Your task to perform on an android device: choose inbox layout in the gmail app Image 0: 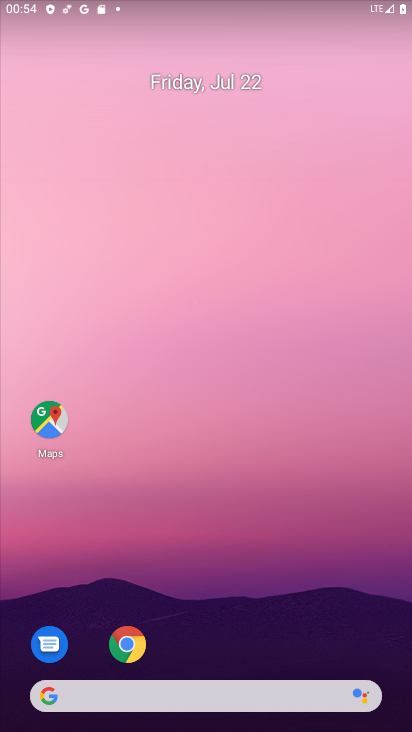
Step 0: drag from (211, 726) to (271, 145)
Your task to perform on an android device: choose inbox layout in the gmail app Image 1: 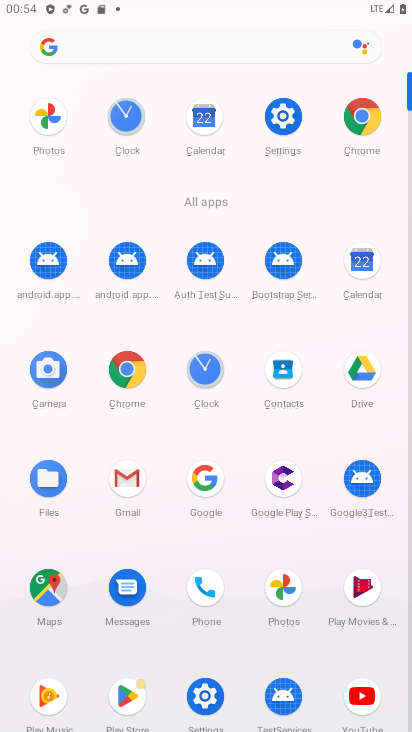
Step 1: click (115, 476)
Your task to perform on an android device: choose inbox layout in the gmail app Image 2: 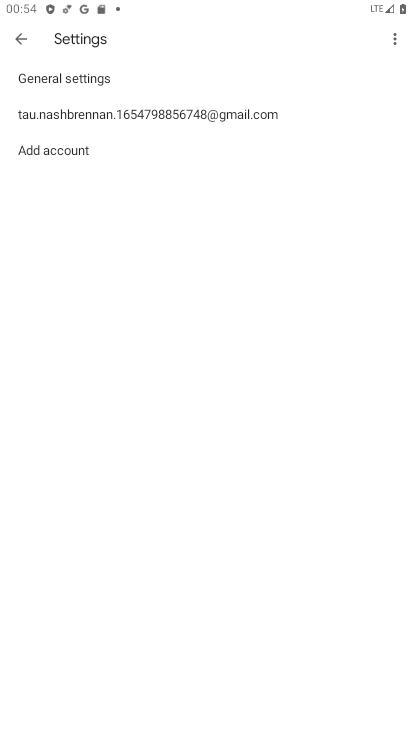
Step 2: click (133, 107)
Your task to perform on an android device: choose inbox layout in the gmail app Image 3: 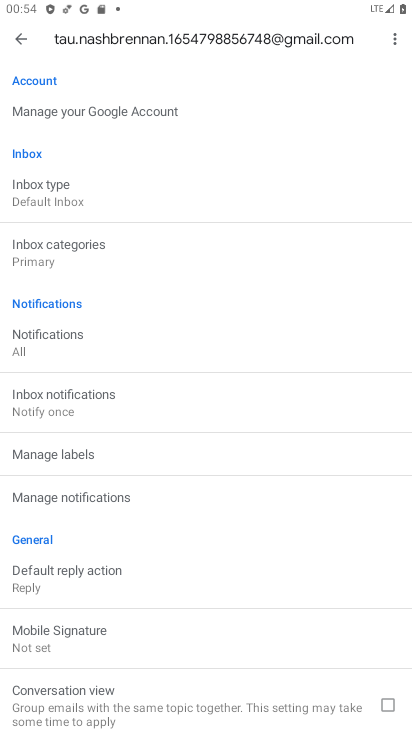
Step 3: click (64, 192)
Your task to perform on an android device: choose inbox layout in the gmail app Image 4: 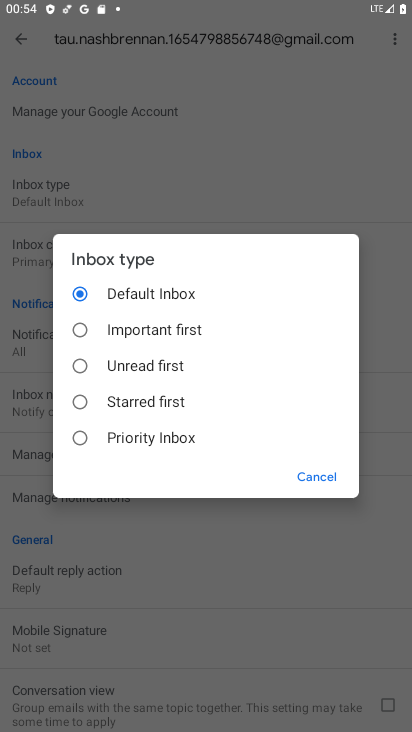
Step 4: click (133, 437)
Your task to perform on an android device: choose inbox layout in the gmail app Image 5: 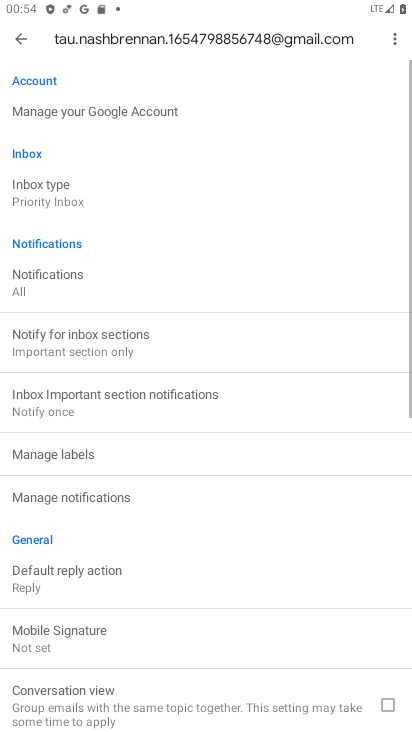
Step 5: task complete